Your task to perform on an android device: Go to Reddit.com Image 0: 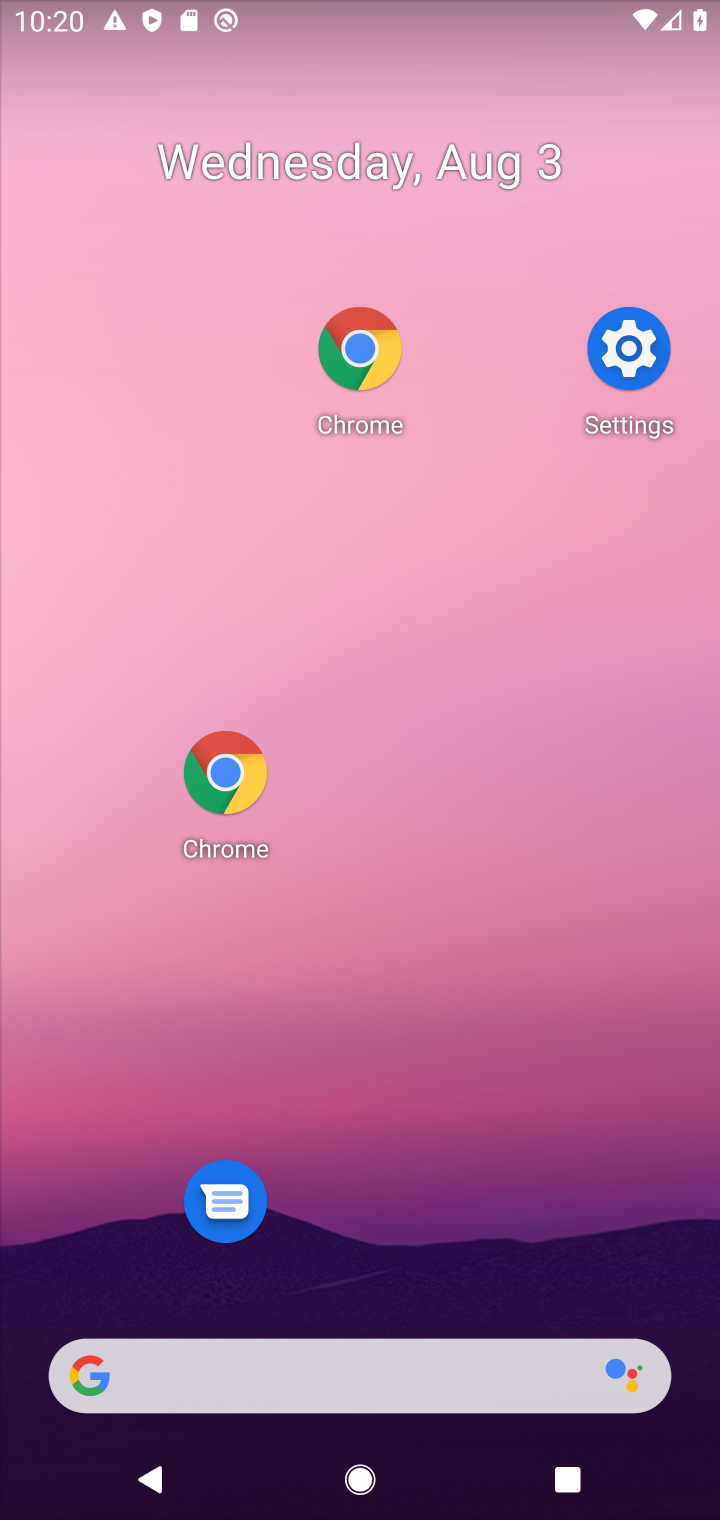
Step 0: drag from (502, 994) to (386, 58)
Your task to perform on an android device: Go to Reddit.com Image 1: 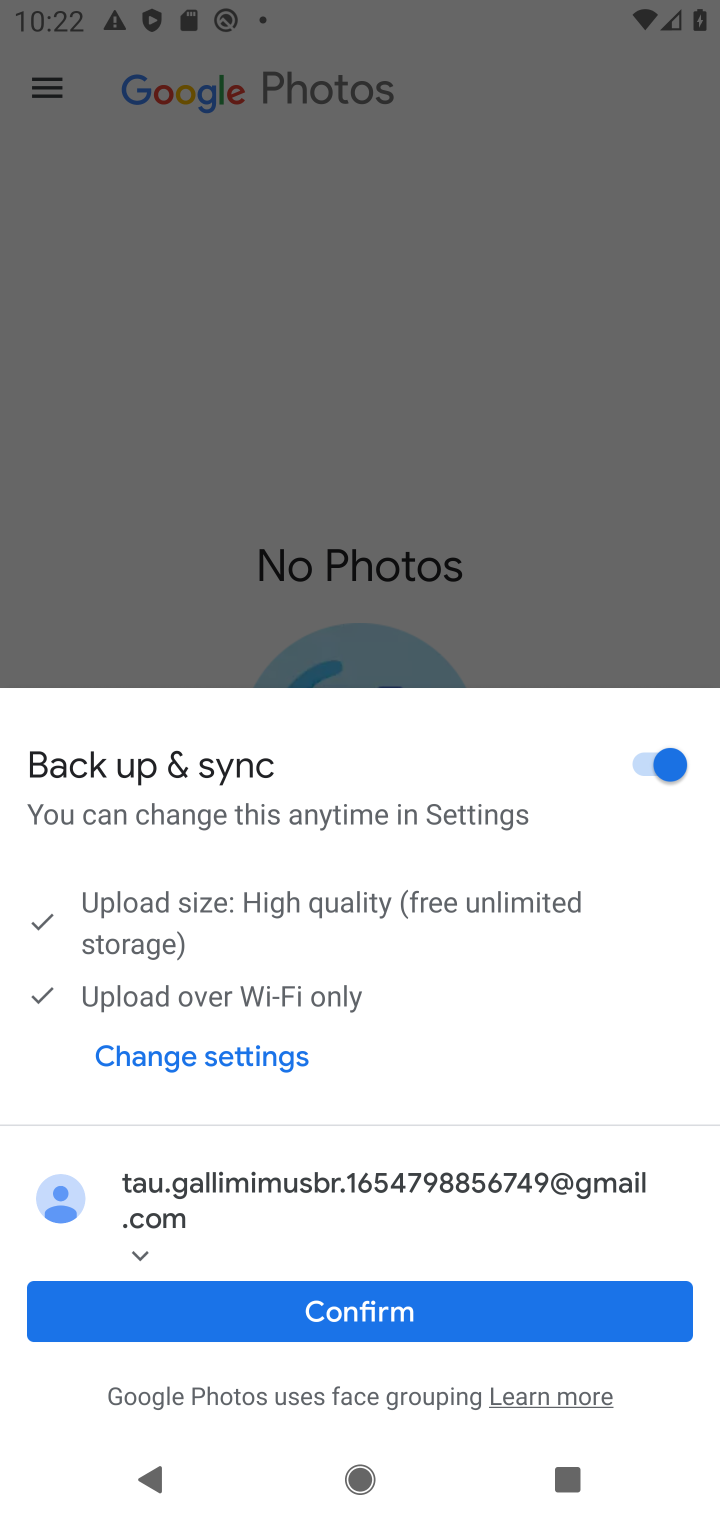
Step 1: click (391, 1284)
Your task to perform on an android device: Go to Reddit.com Image 2: 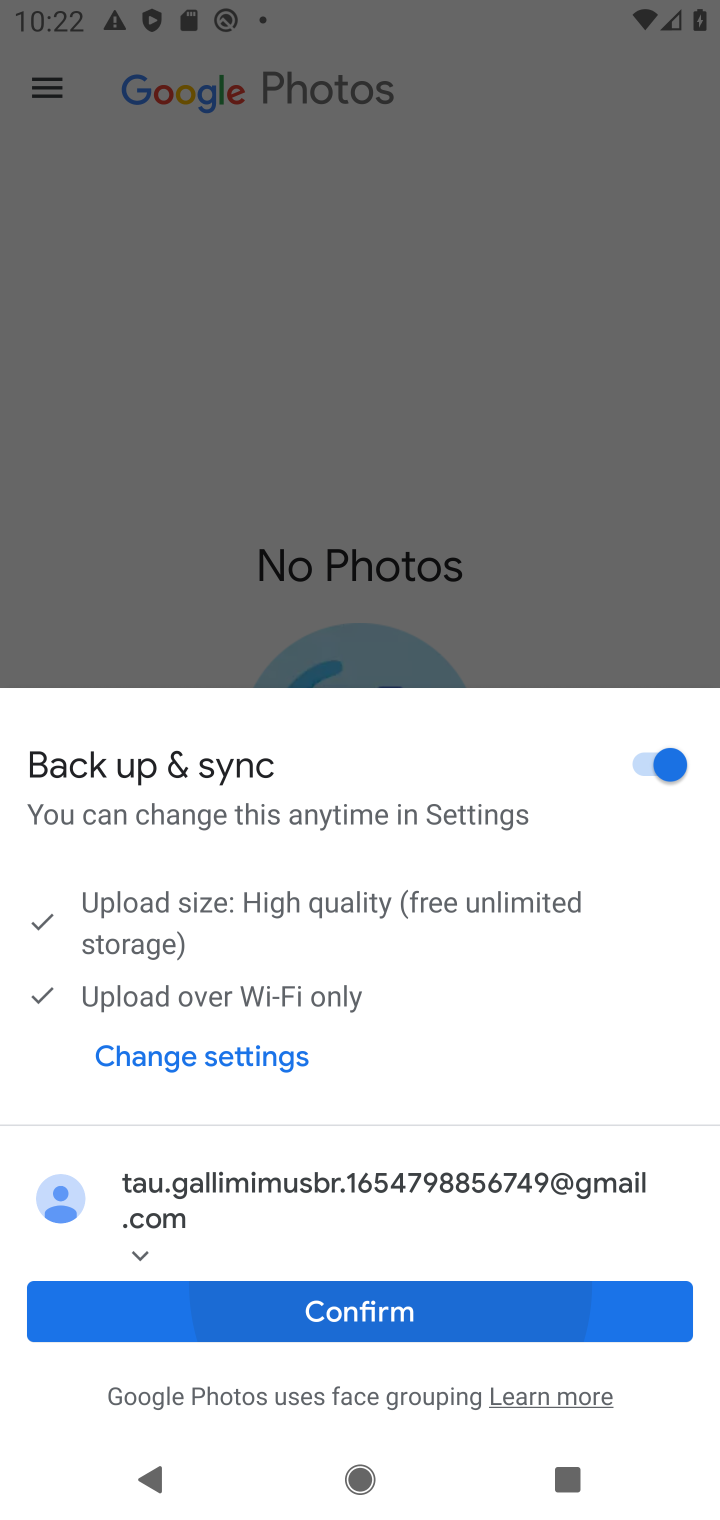
Step 2: click (389, 1287)
Your task to perform on an android device: Go to Reddit.com Image 3: 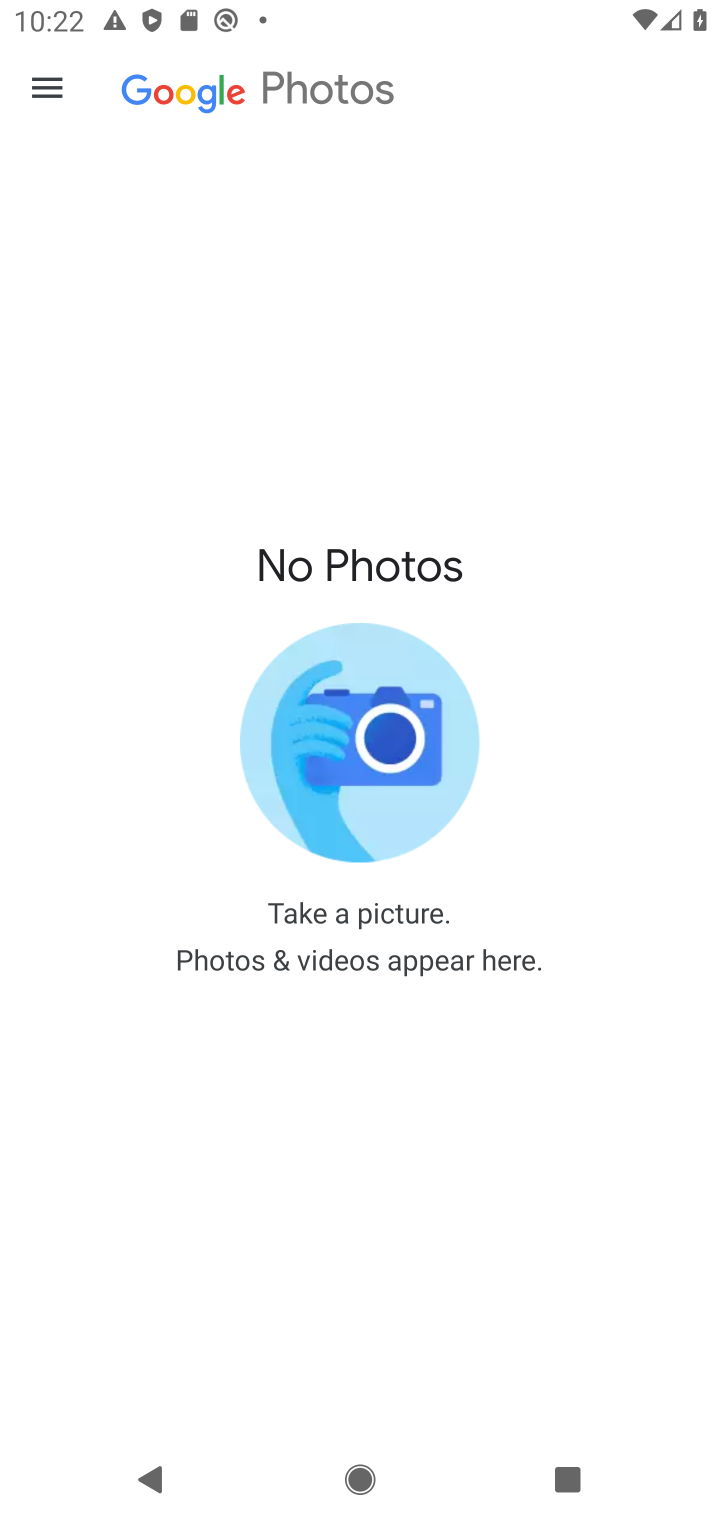
Step 3: click (472, 1241)
Your task to perform on an android device: Go to Reddit.com Image 4: 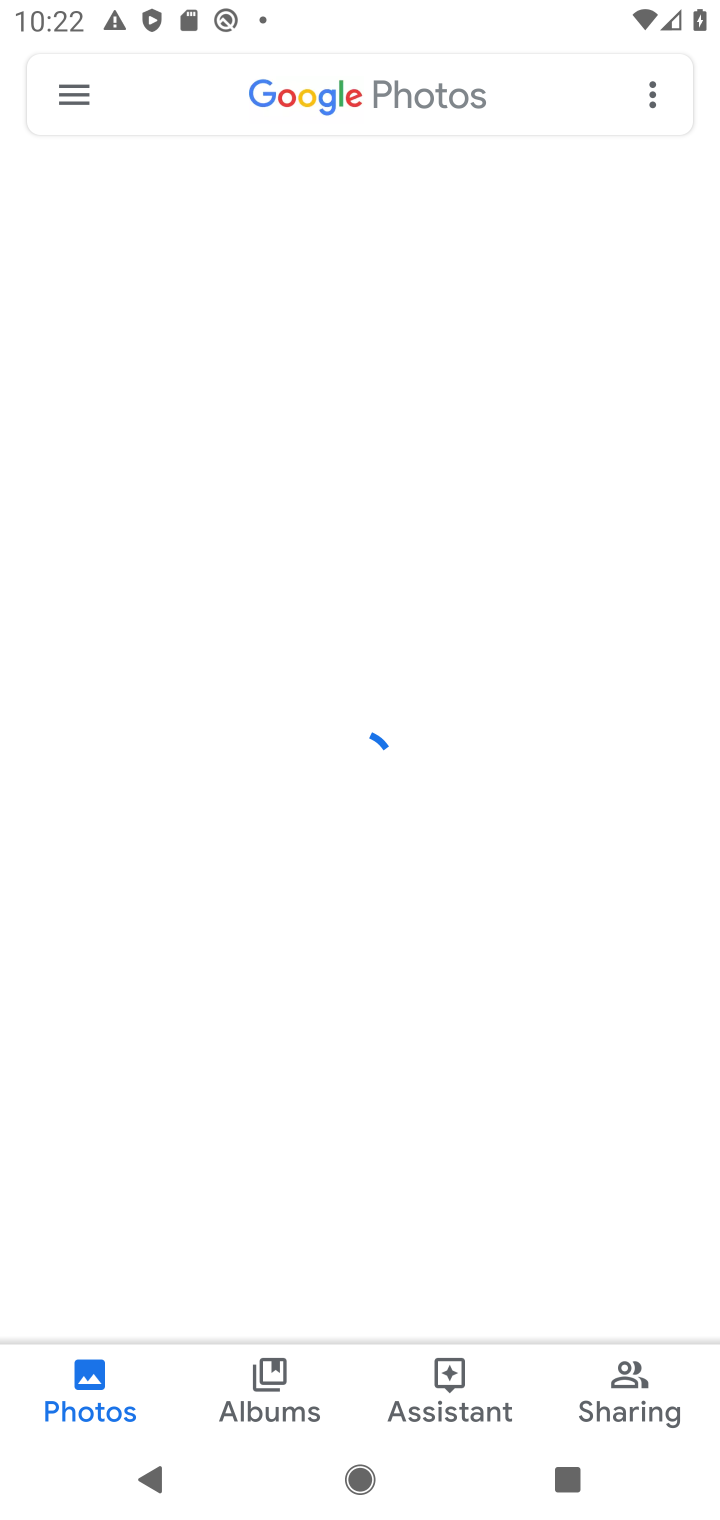
Step 4: press back button
Your task to perform on an android device: Go to Reddit.com Image 5: 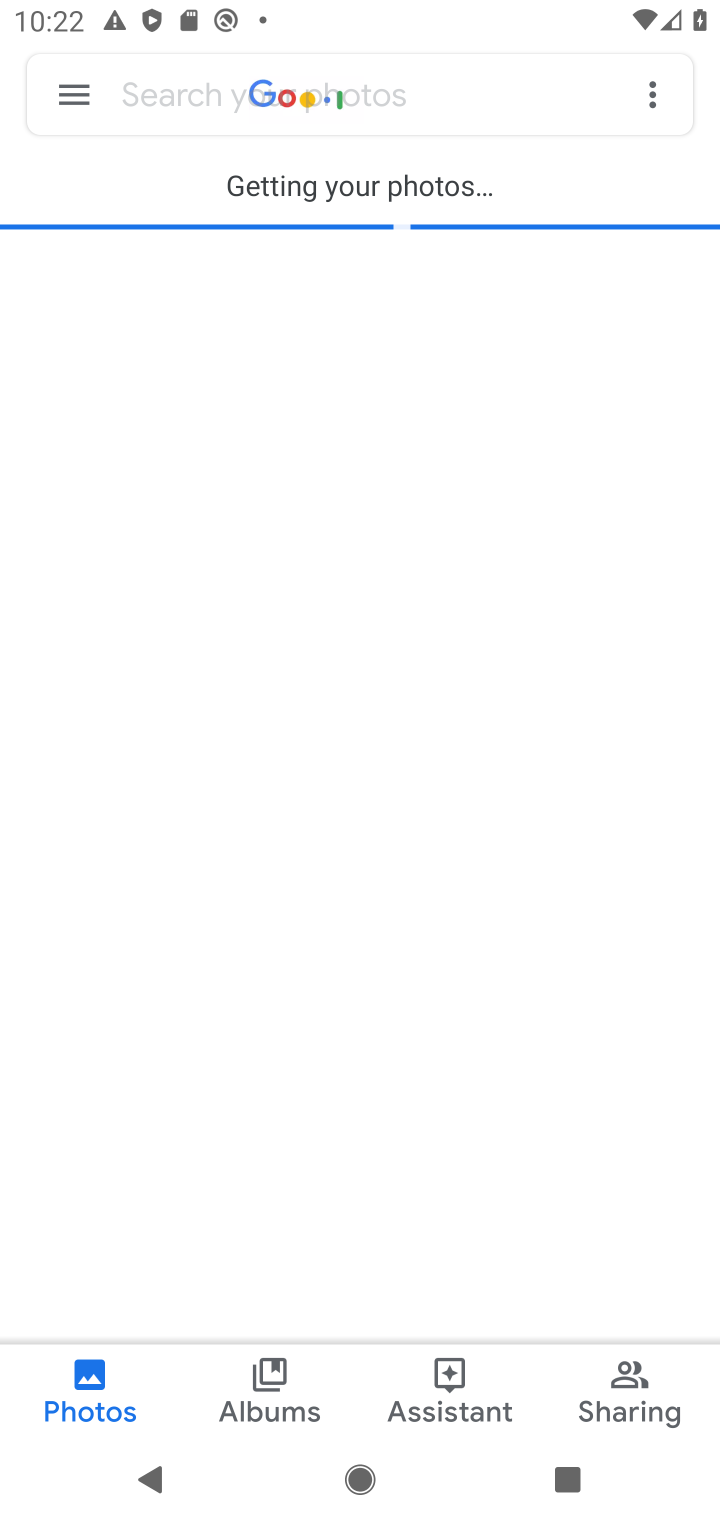
Step 5: press back button
Your task to perform on an android device: Go to Reddit.com Image 6: 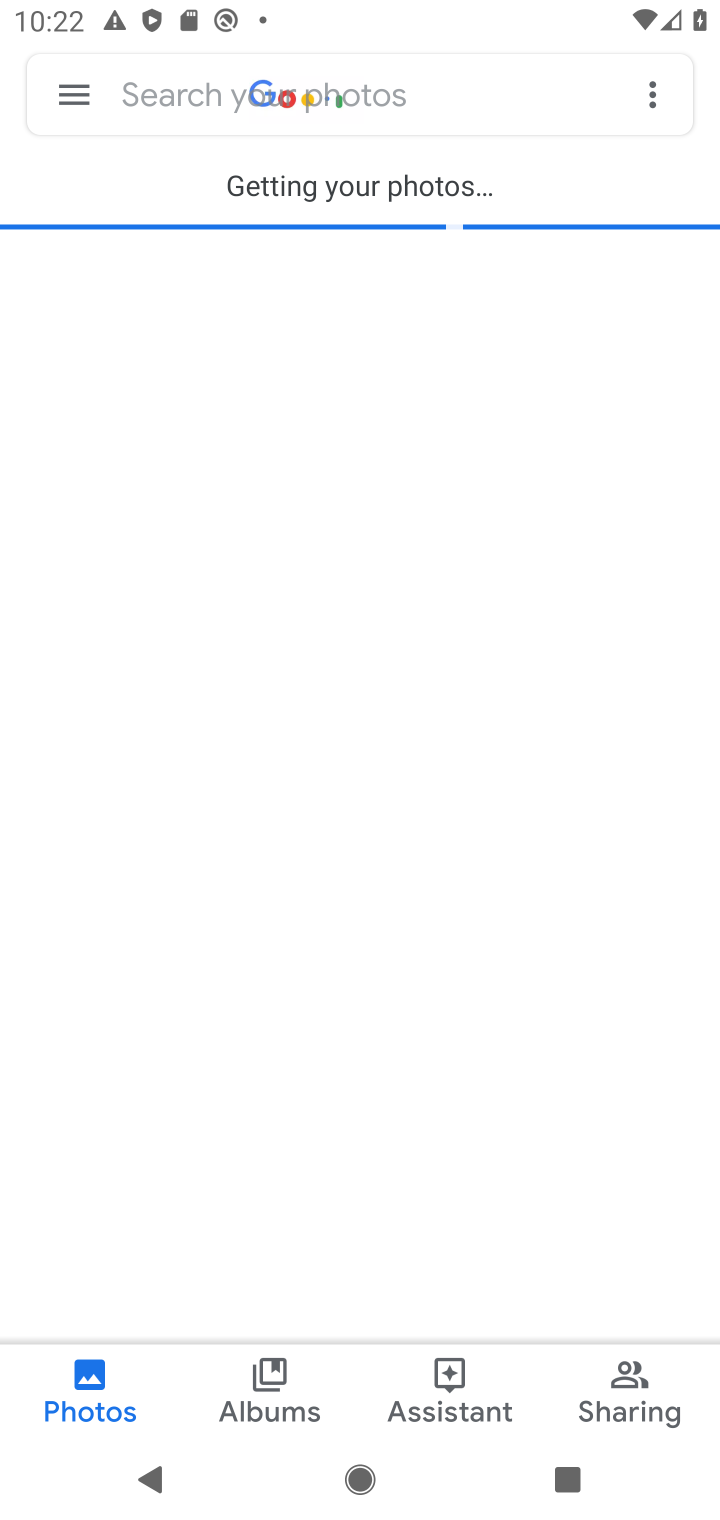
Step 6: press home button
Your task to perform on an android device: Go to Reddit.com Image 7: 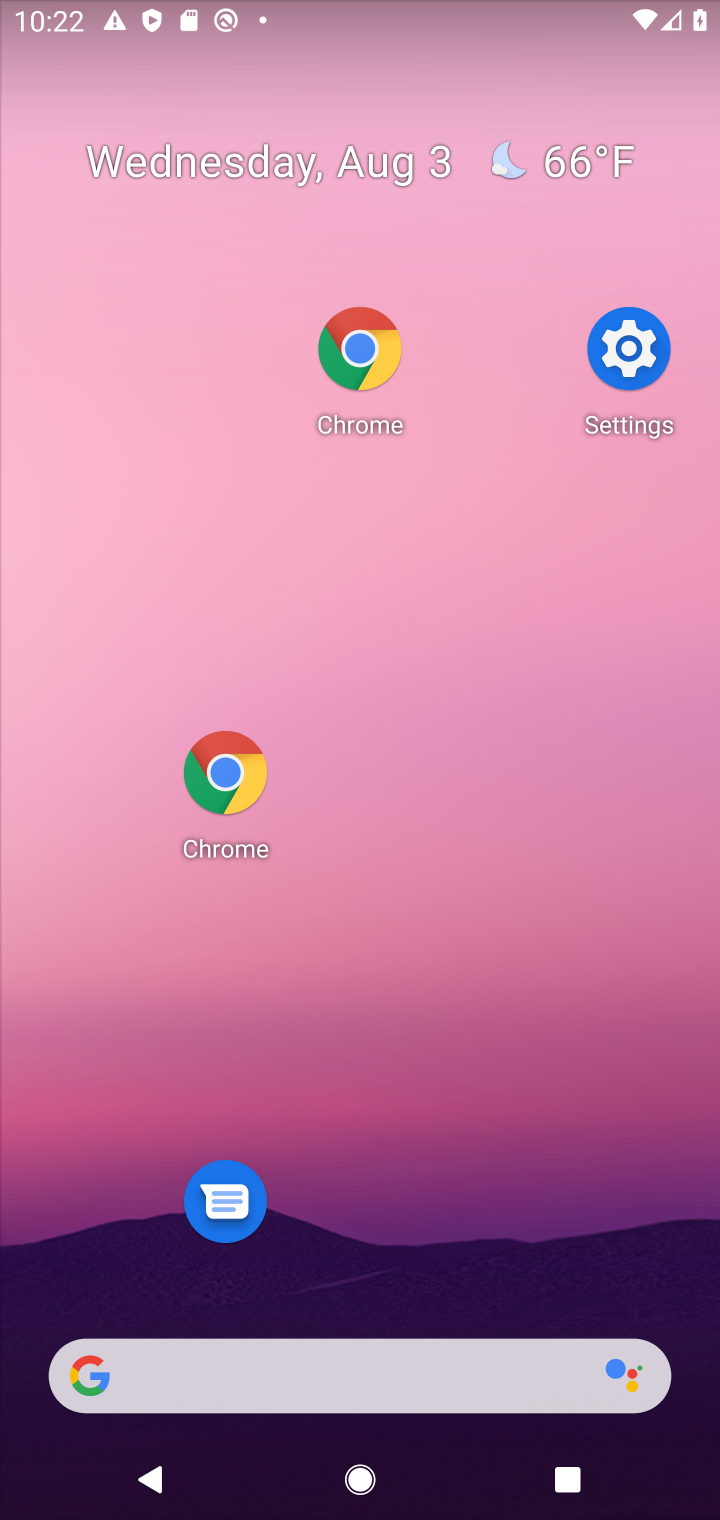
Step 7: press back button
Your task to perform on an android device: Go to Reddit.com Image 8: 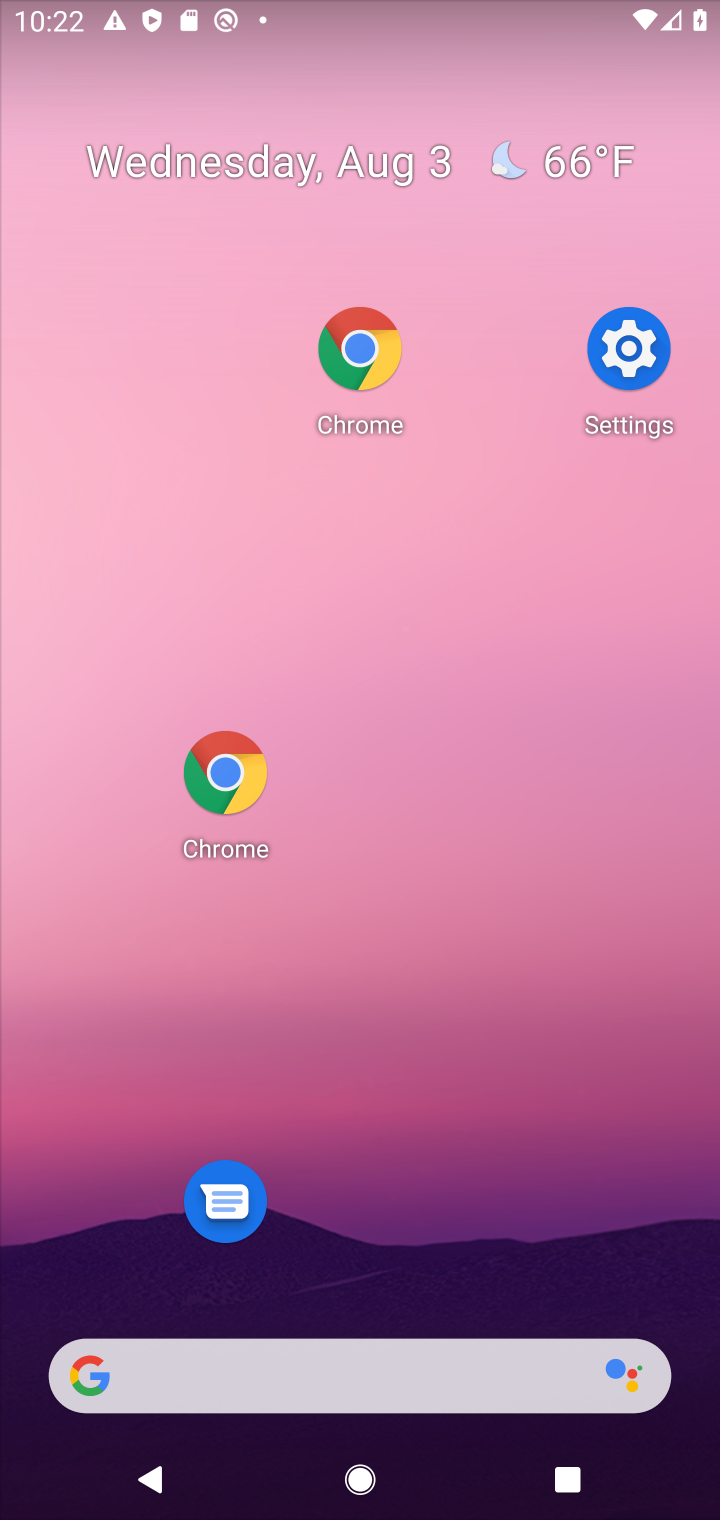
Step 8: press back button
Your task to perform on an android device: Go to Reddit.com Image 9: 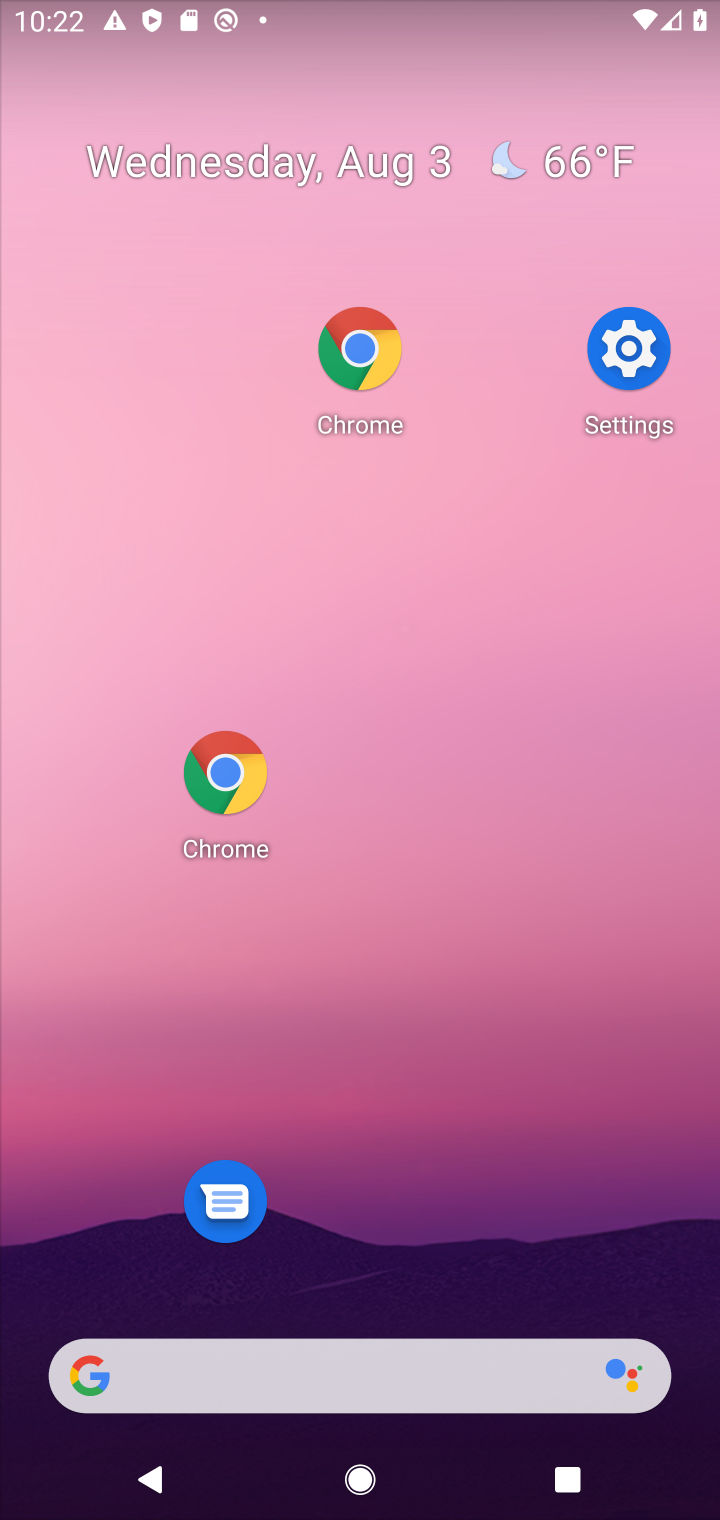
Step 9: press home button
Your task to perform on an android device: Go to Reddit.com Image 10: 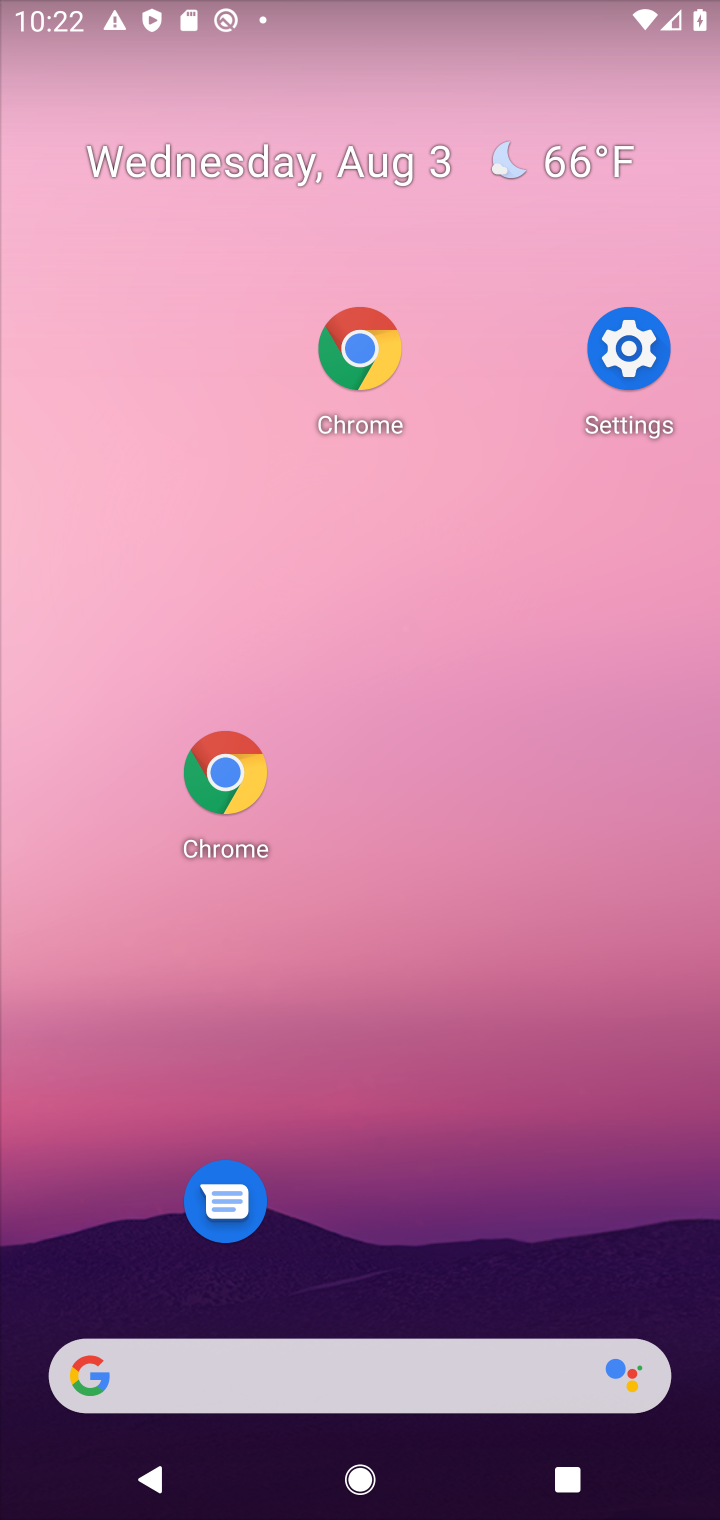
Step 10: click (318, 62)
Your task to perform on an android device: Go to Reddit.com Image 11: 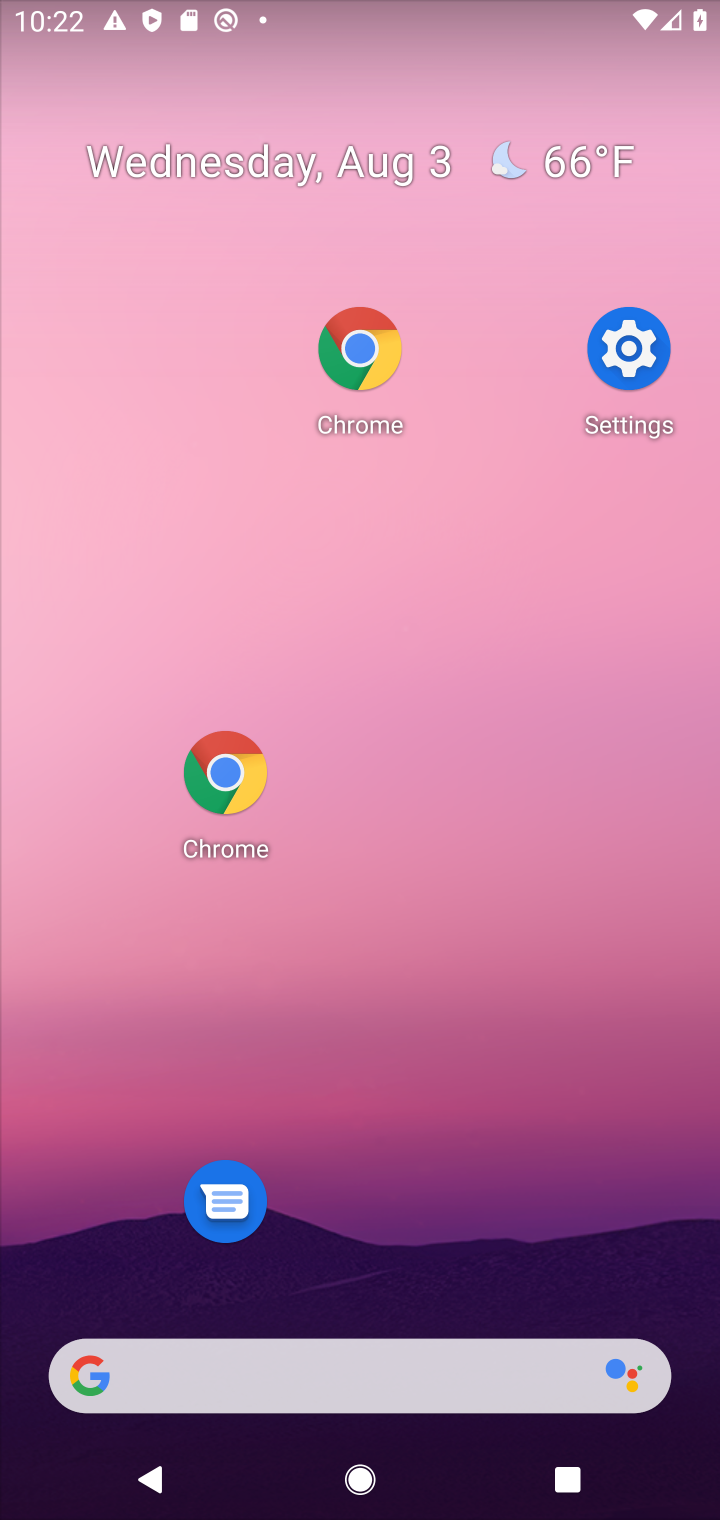
Step 11: press home button
Your task to perform on an android device: Go to Reddit.com Image 12: 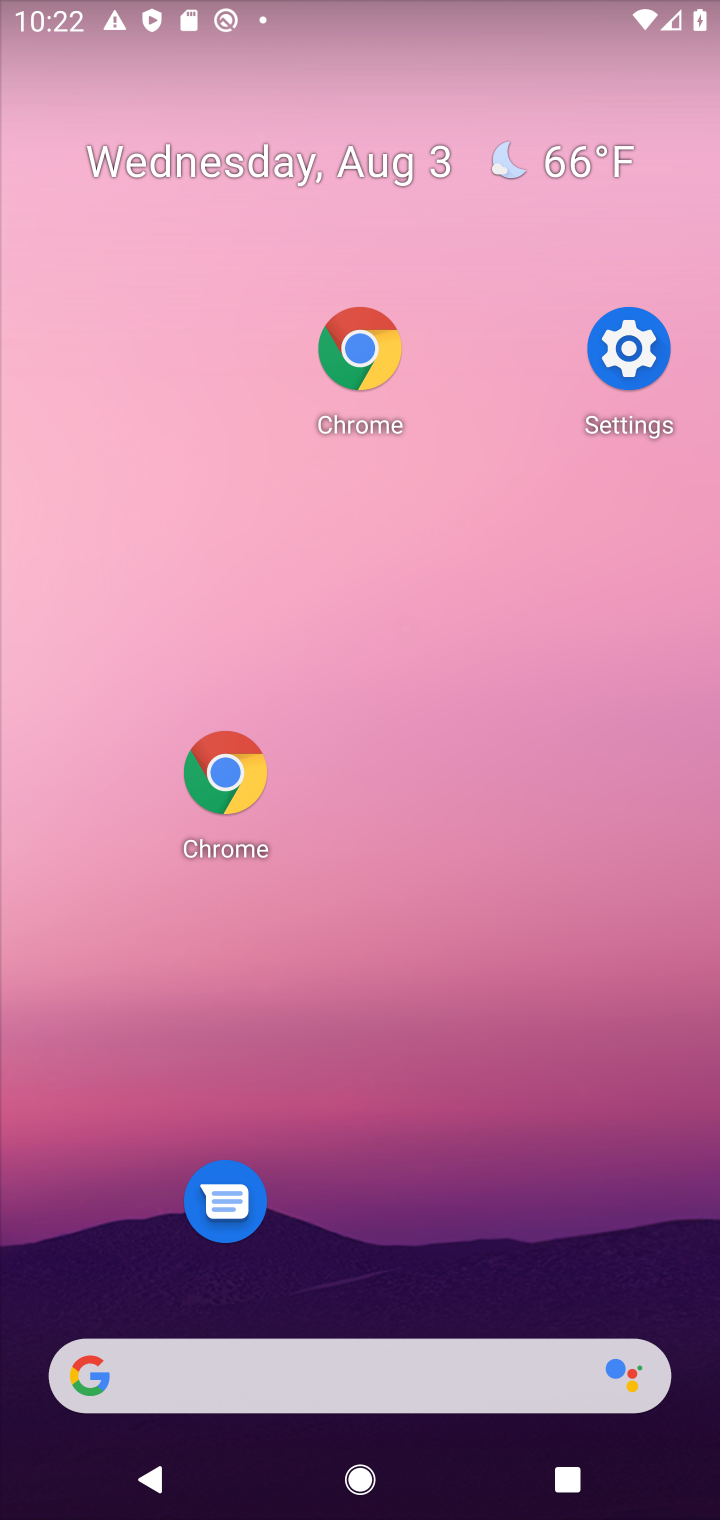
Step 12: drag from (239, 54) to (349, 38)
Your task to perform on an android device: Go to Reddit.com Image 13: 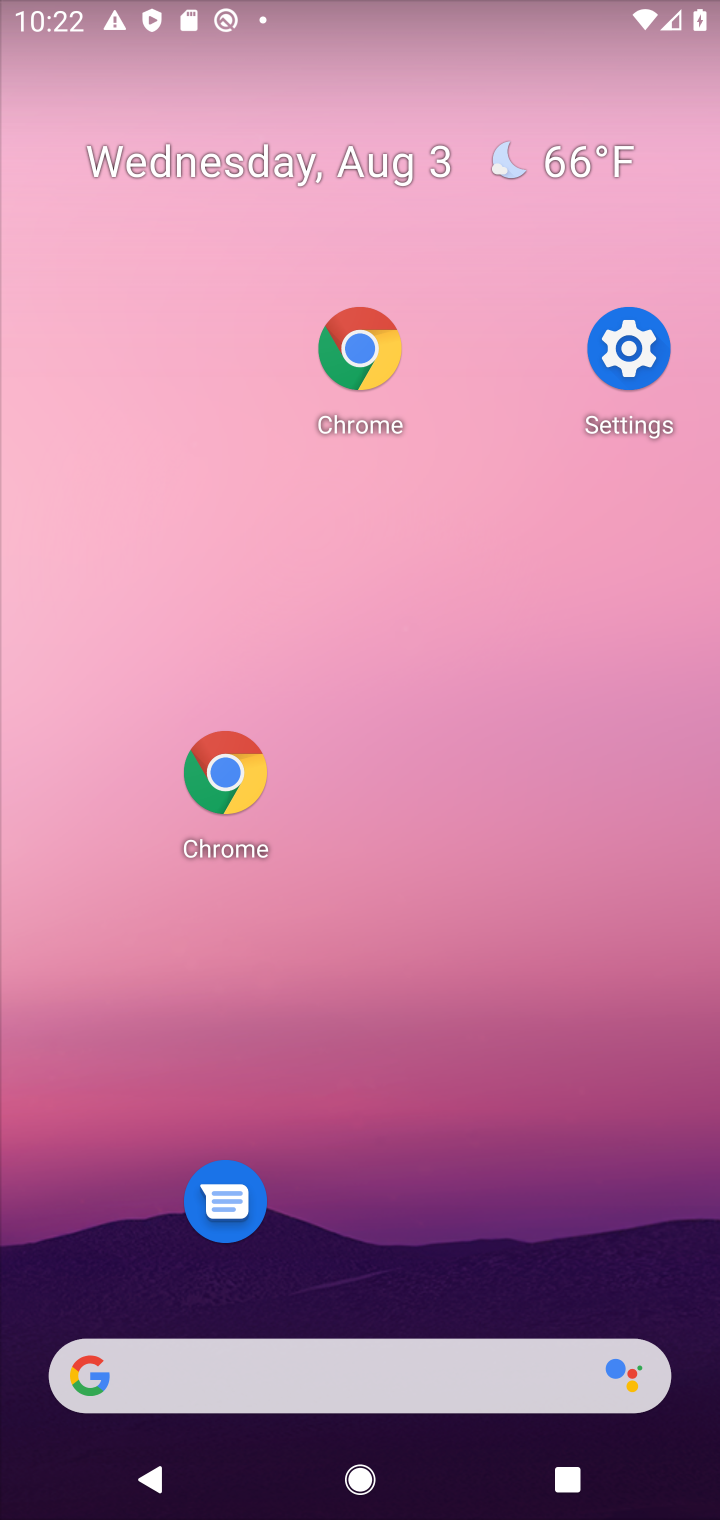
Step 13: drag from (444, 1265) to (365, 112)
Your task to perform on an android device: Go to Reddit.com Image 14: 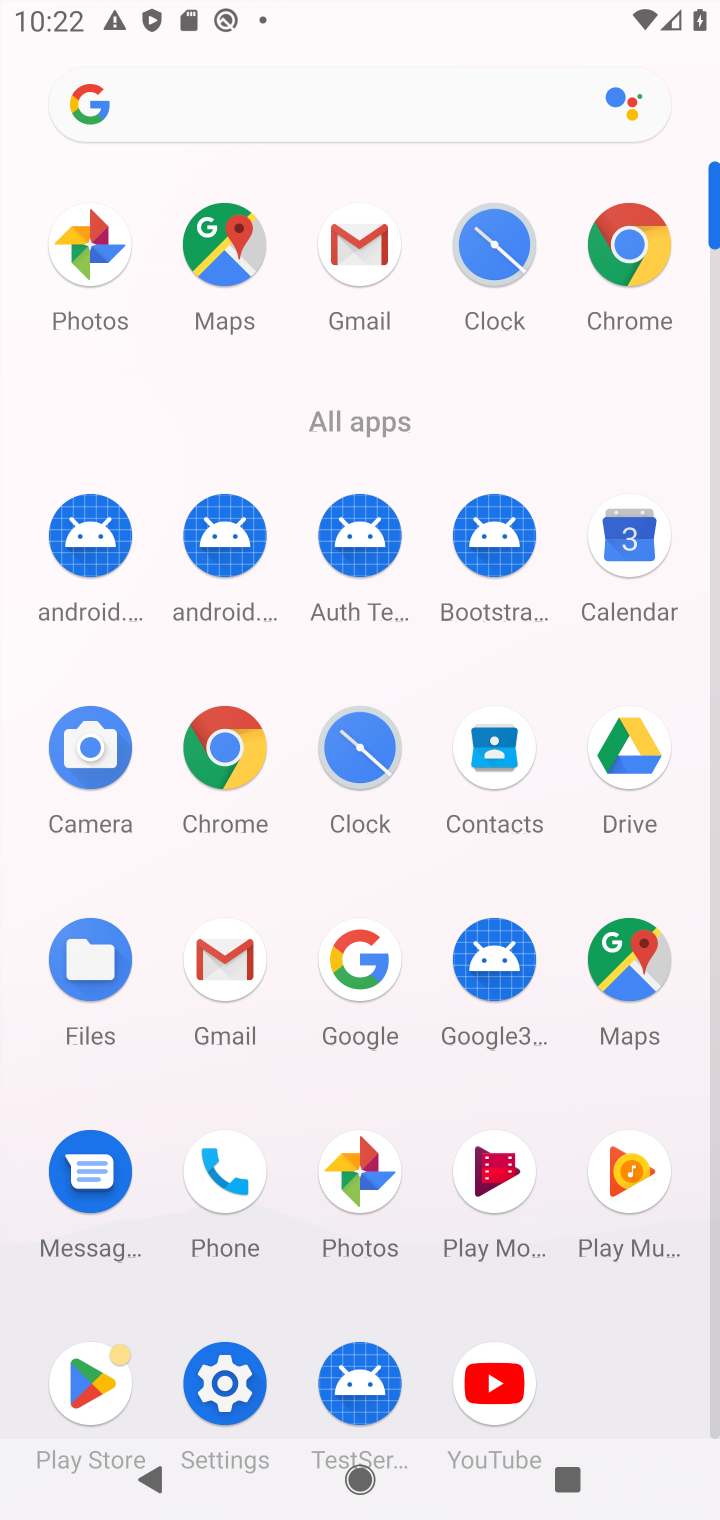
Step 14: drag from (612, 200) to (614, 283)
Your task to perform on an android device: Go to Reddit.com Image 15: 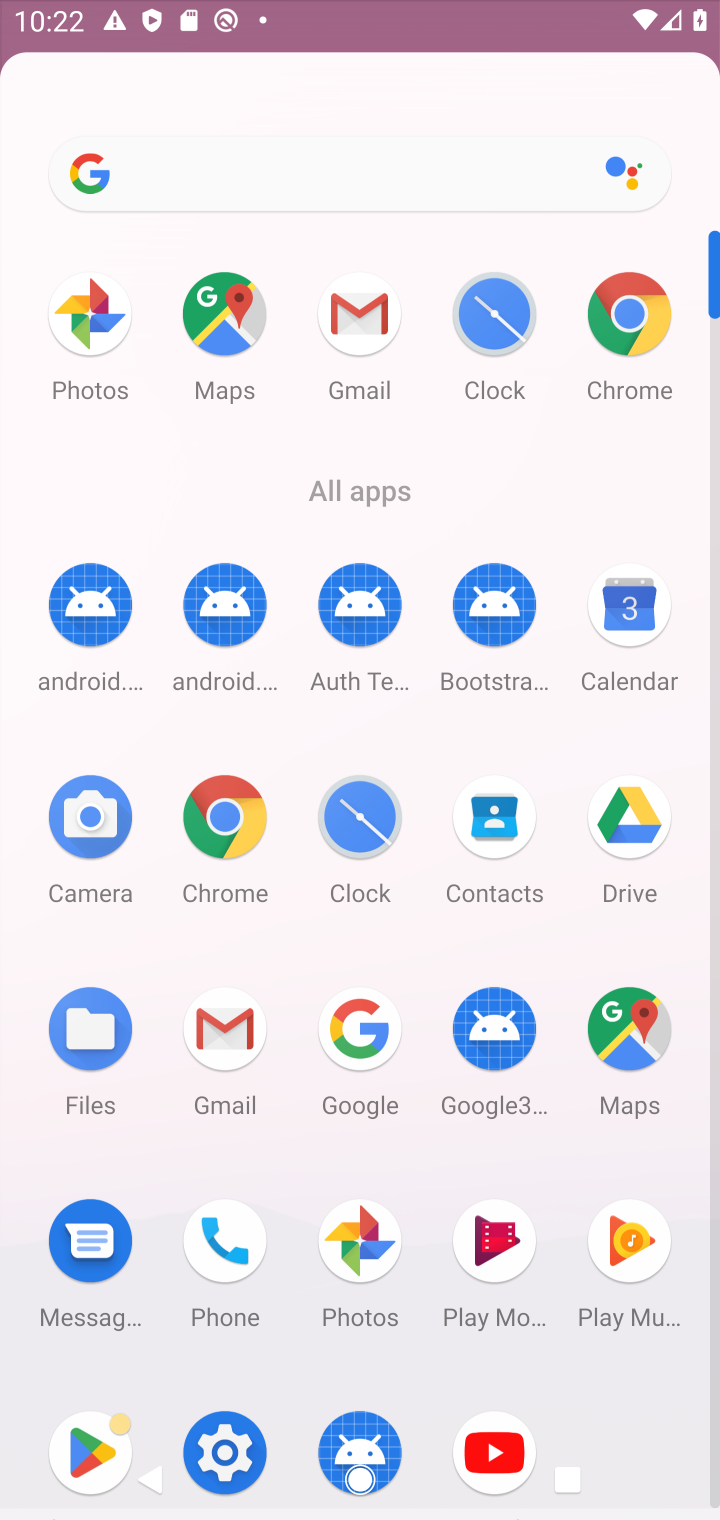
Step 15: click (622, 284)
Your task to perform on an android device: Go to Reddit.com Image 16: 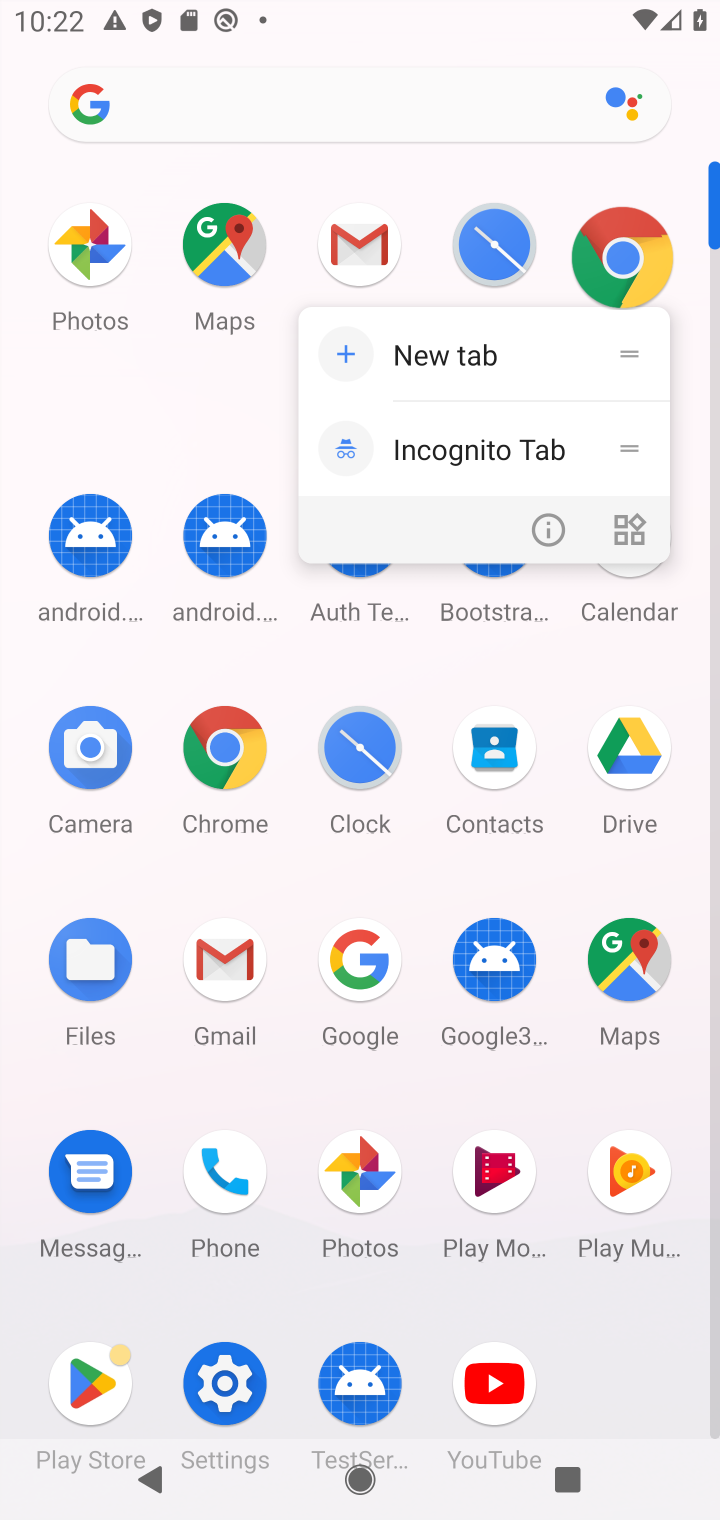
Step 16: click (630, 251)
Your task to perform on an android device: Go to Reddit.com Image 17: 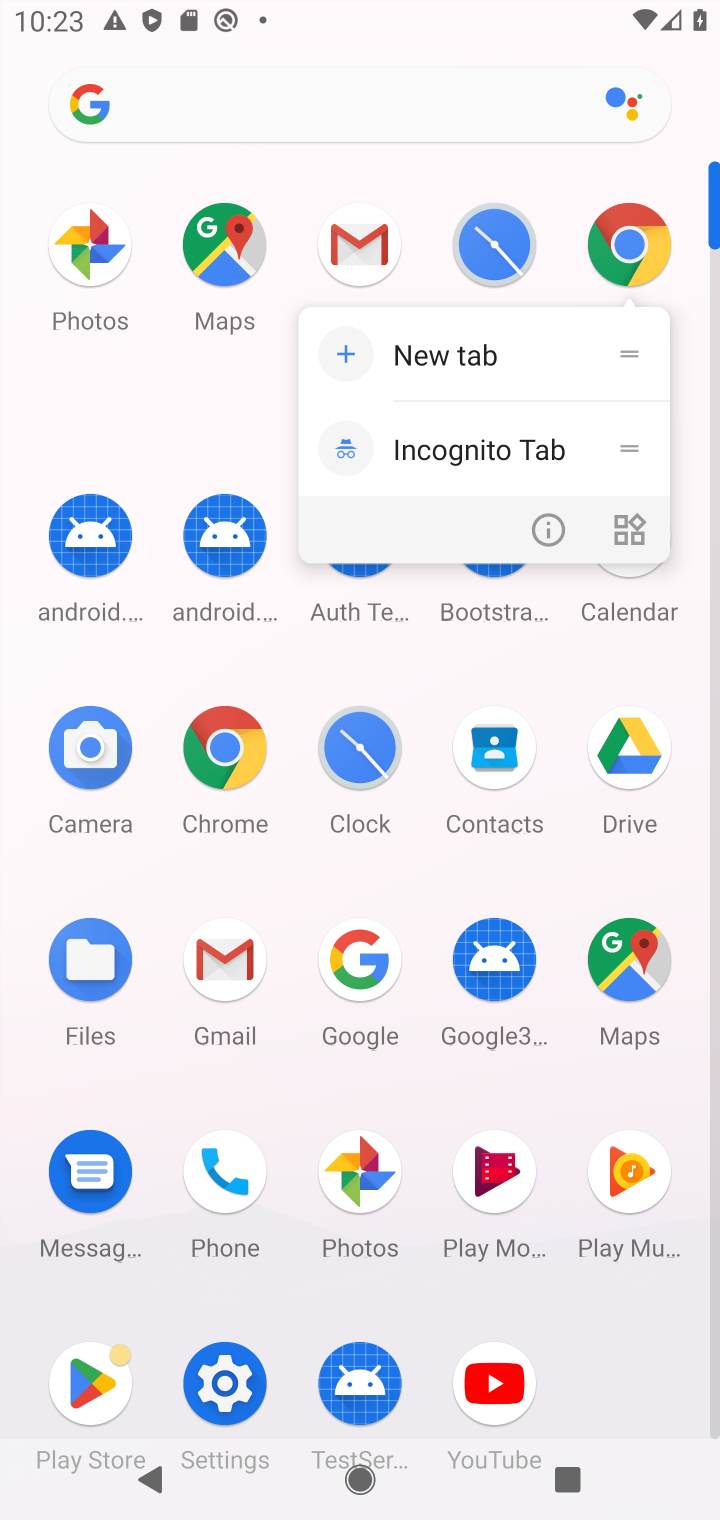
Step 17: click (409, 348)
Your task to perform on an android device: Go to Reddit.com Image 18: 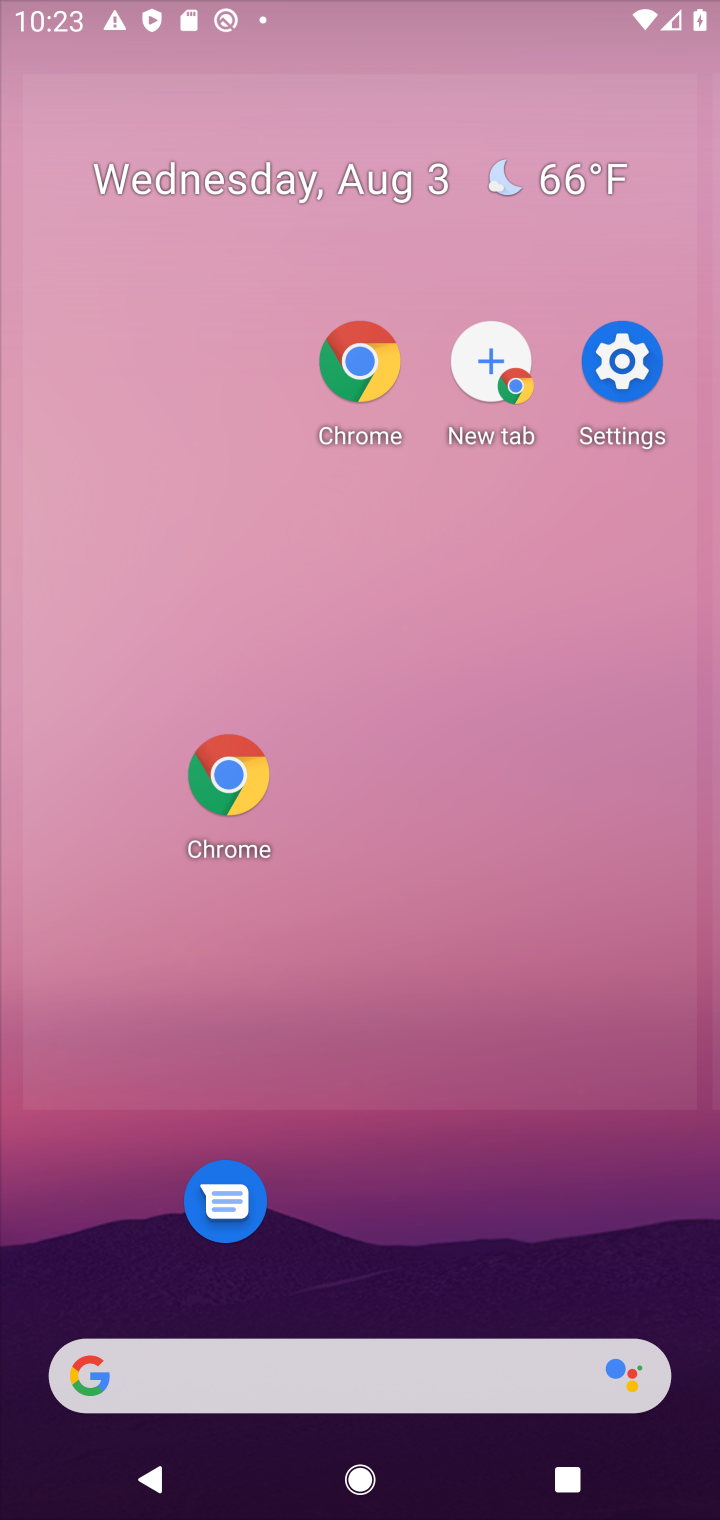
Step 18: click (373, 377)
Your task to perform on an android device: Go to Reddit.com Image 19: 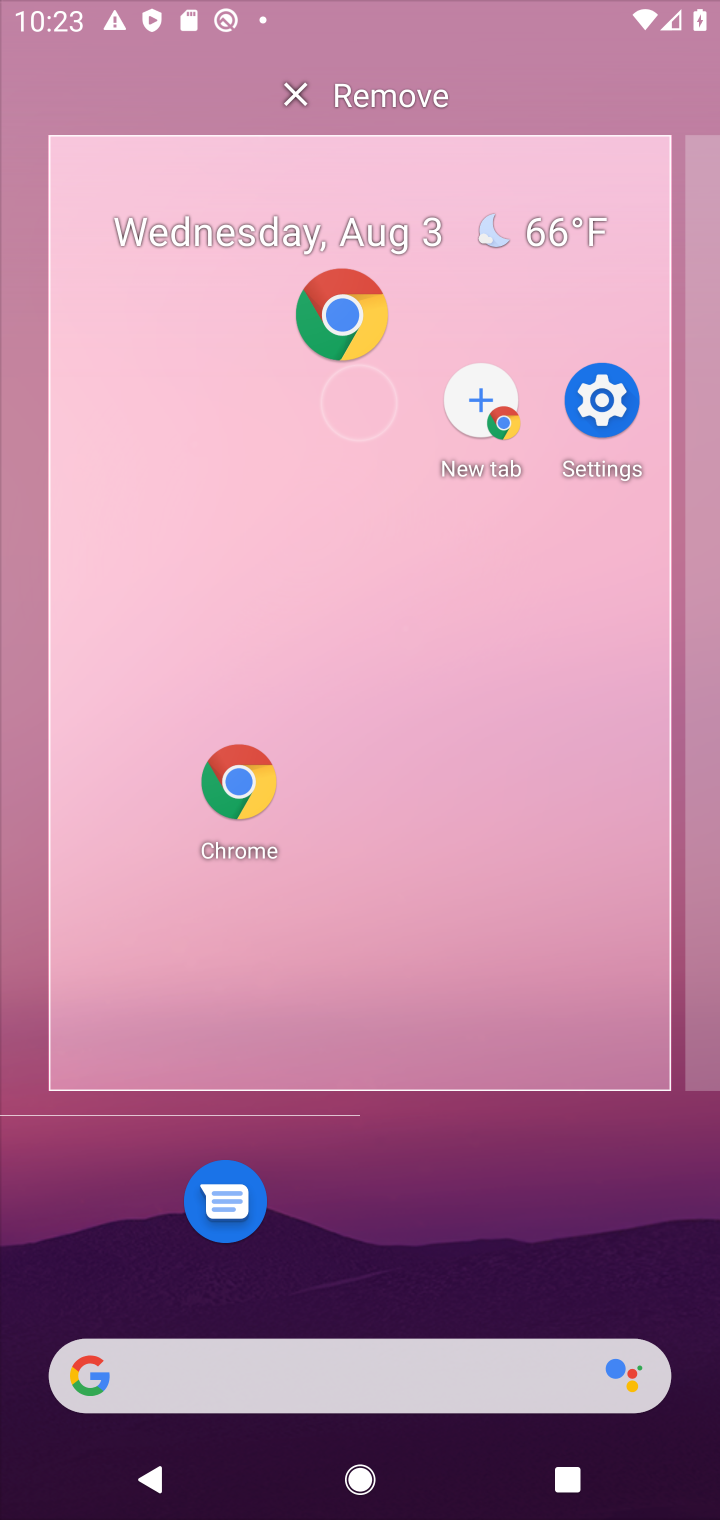
Step 19: click (452, 448)
Your task to perform on an android device: Go to Reddit.com Image 20: 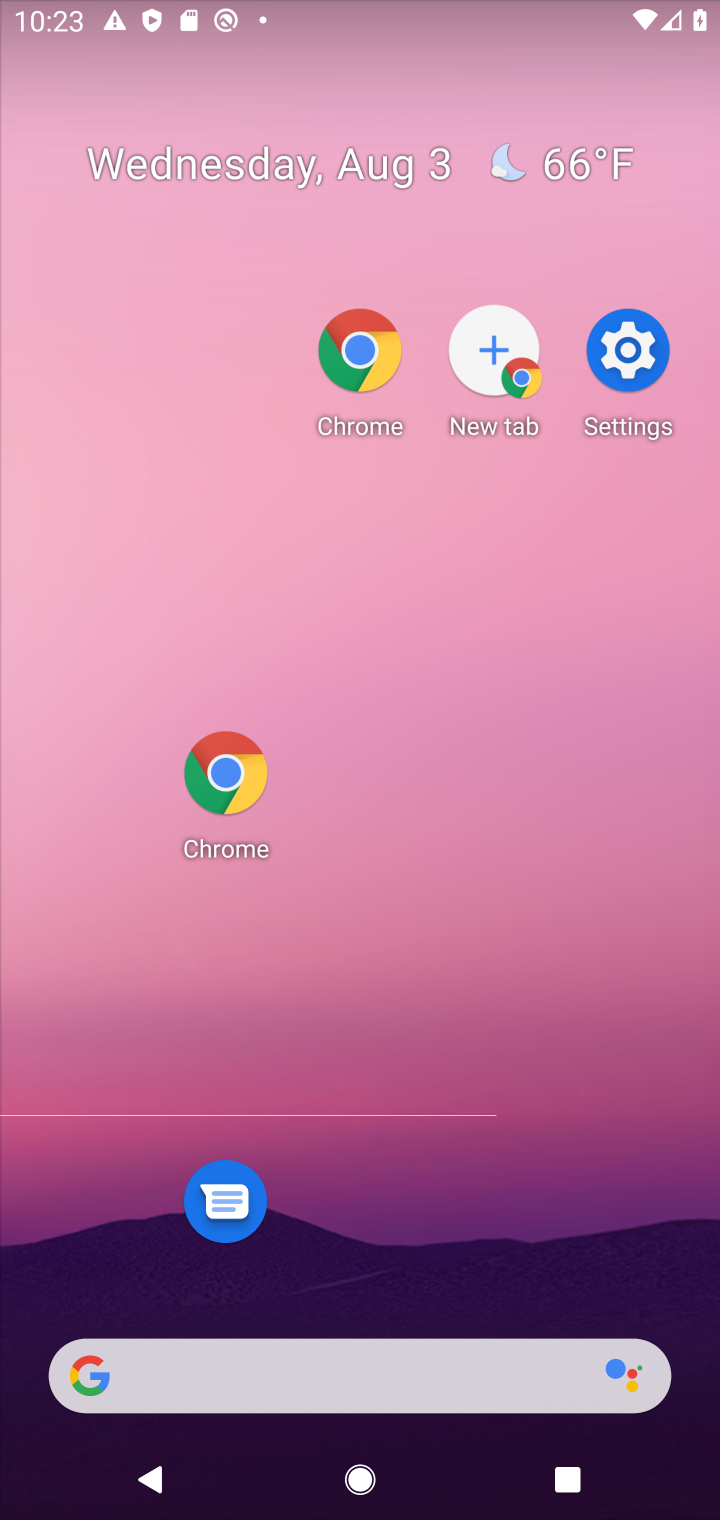
Step 20: task complete